Your task to perform on an android device: What's on the menu at Five Guys? Image 0: 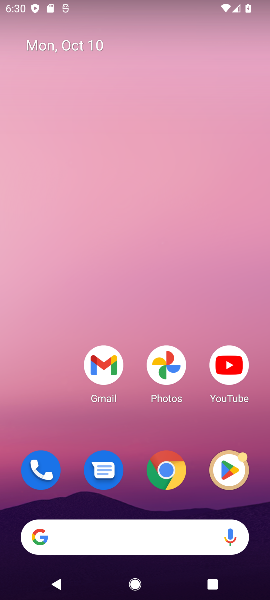
Step 0: click (165, 486)
Your task to perform on an android device: What's on the menu at Five Guys? Image 1: 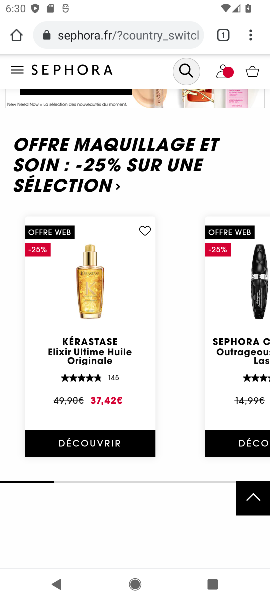
Step 1: click (187, 40)
Your task to perform on an android device: What's on the menu at Five Guys? Image 2: 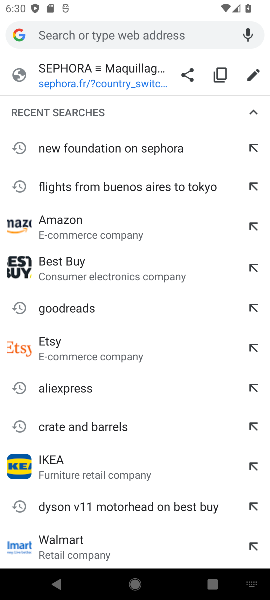
Step 2: type "What's on the menu at Five Guys?"
Your task to perform on an android device: What's on the menu at Five Guys? Image 3: 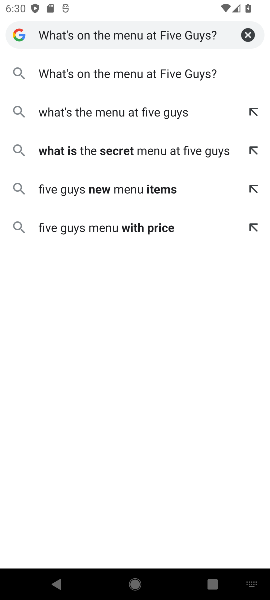
Step 3: click (87, 63)
Your task to perform on an android device: What's on the menu at Five Guys? Image 4: 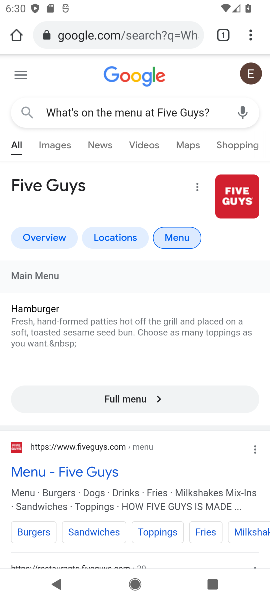
Step 4: click (117, 397)
Your task to perform on an android device: What's on the menu at Five Guys? Image 5: 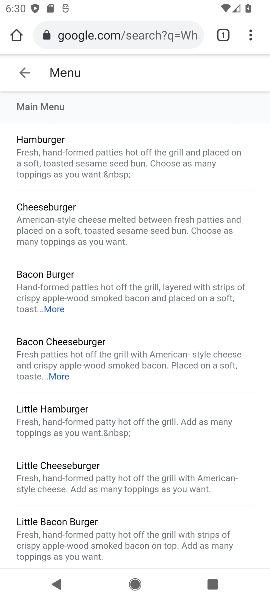
Step 5: task complete